Your task to perform on an android device: Show me popular videos on Youtube Image 0: 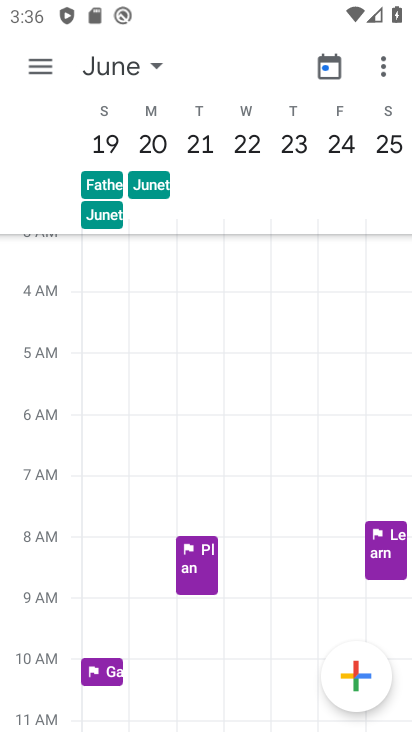
Step 0: press home button
Your task to perform on an android device: Show me popular videos on Youtube Image 1: 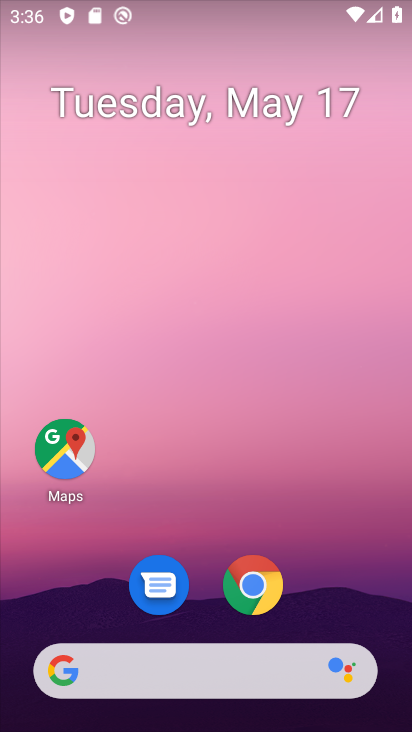
Step 1: drag from (209, 507) to (264, 78)
Your task to perform on an android device: Show me popular videos on Youtube Image 2: 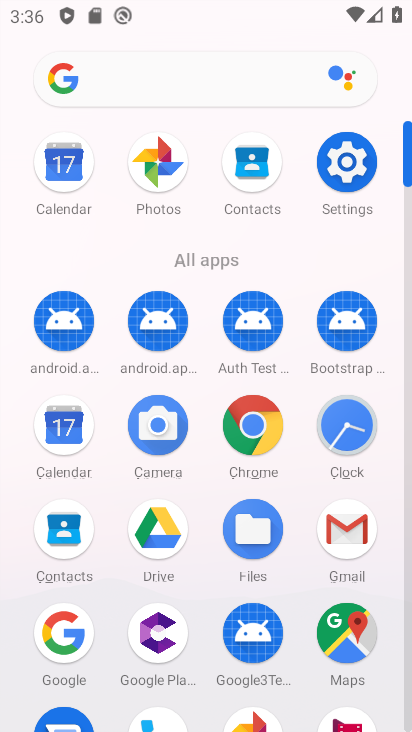
Step 2: drag from (286, 613) to (314, 343)
Your task to perform on an android device: Show me popular videos on Youtube Image 3: 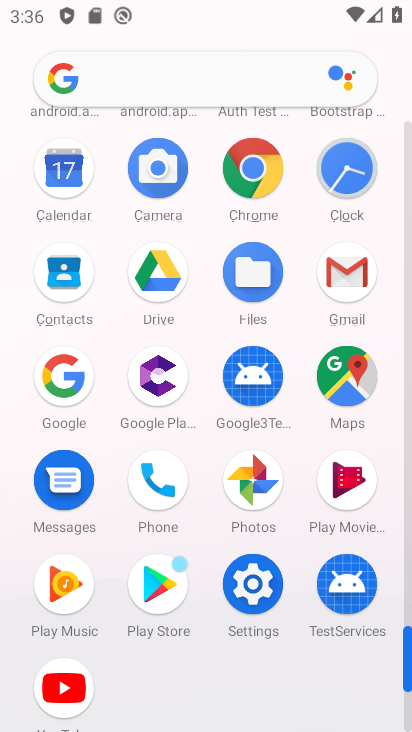
Step 3: click (74, 685)
Your task to perform on an android device: Show me popular videos on Youtube Image 4: 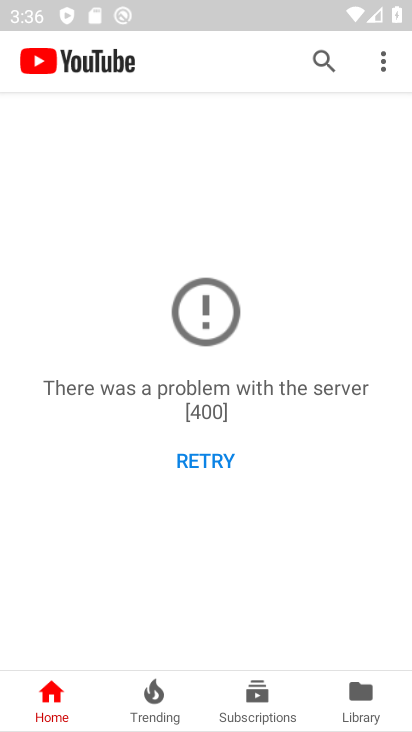
Step 4: click (211, 437)
Your task to perform on an android device: Show me popular videos on Youtube Image 5: 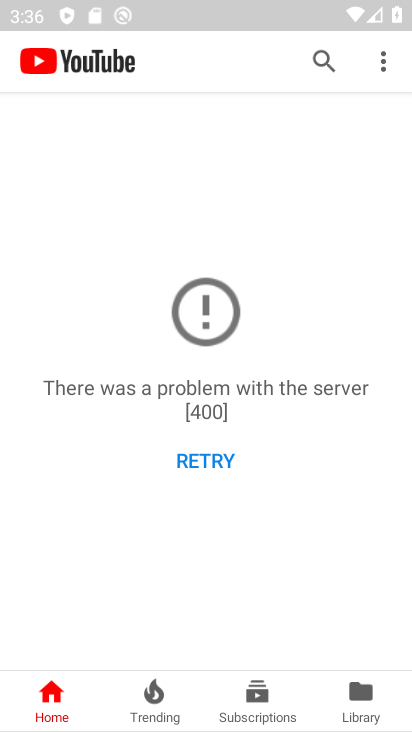
Step 5: click (211, 437)
Your task to perform on an android device: Show me popular videos on Youtube Image 6: 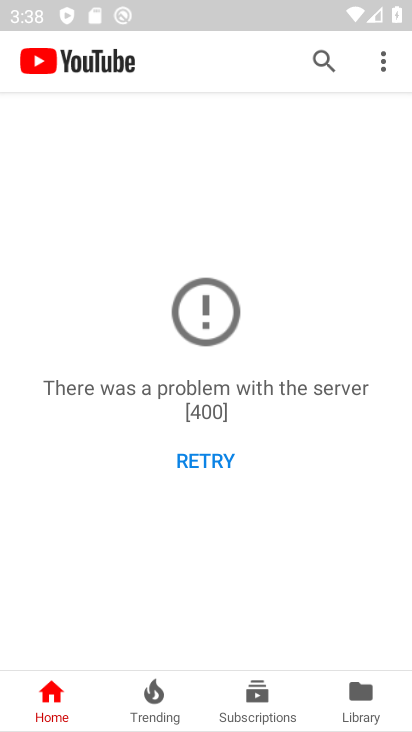
Step 6: click (271, 269)
Your task to perform on an android device: Show me popular videos on Youtube Image 7: 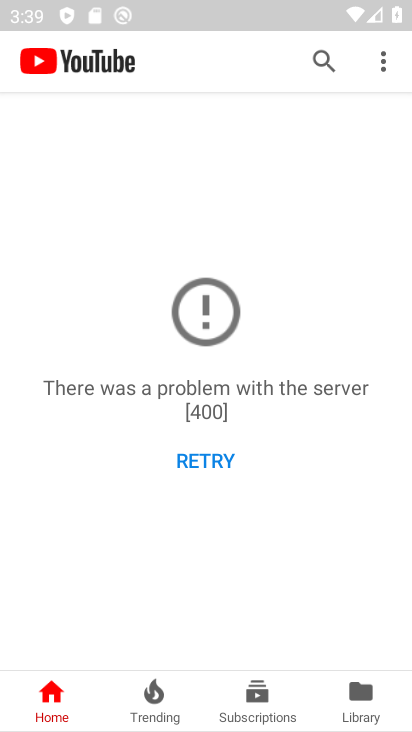
Step 7: task complete